Your task to perform on an android device: Search for lg ultragear on target, select the first entry, and add it to the cart. Image 0: 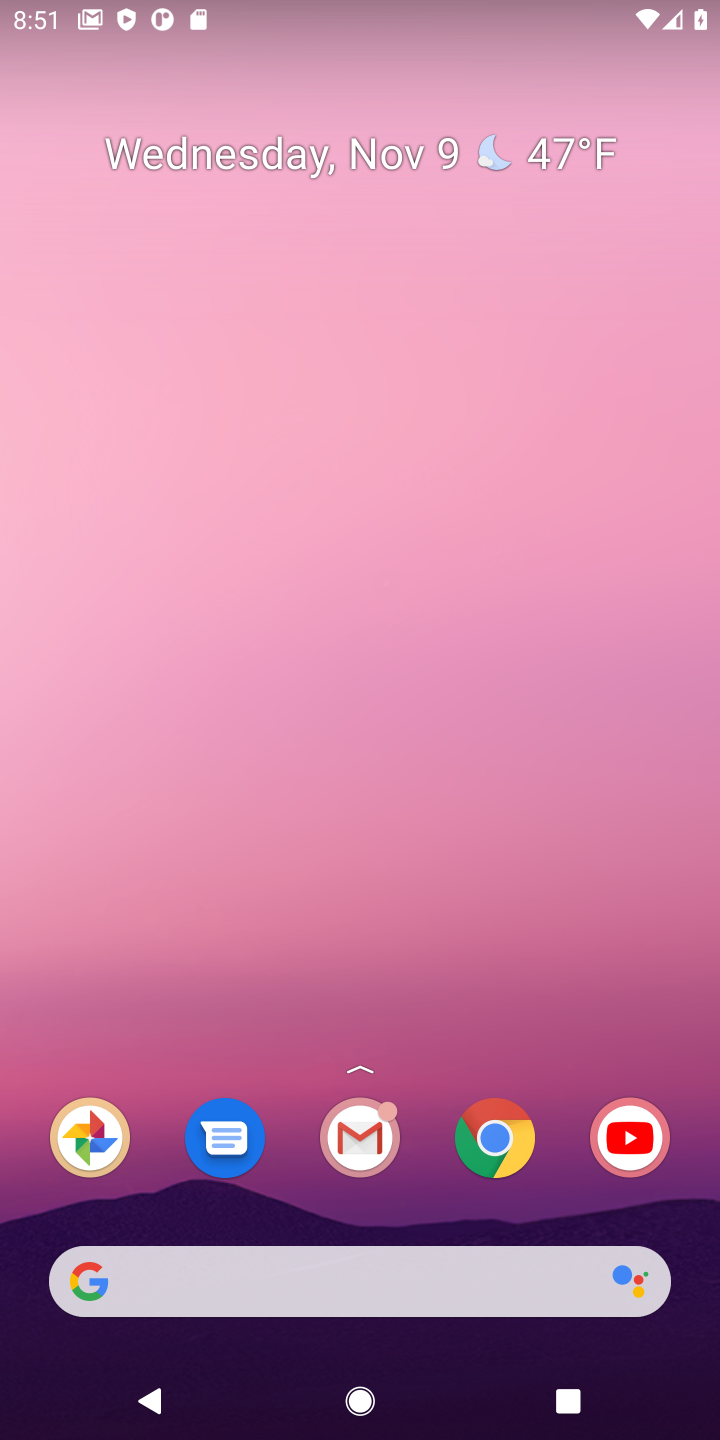
Step 0: drag from (370, 505) to (407, 97)
Your task to perform on an android device: Search for lg ultragear on target, select the first entry, and add it to the cart. Image 1: 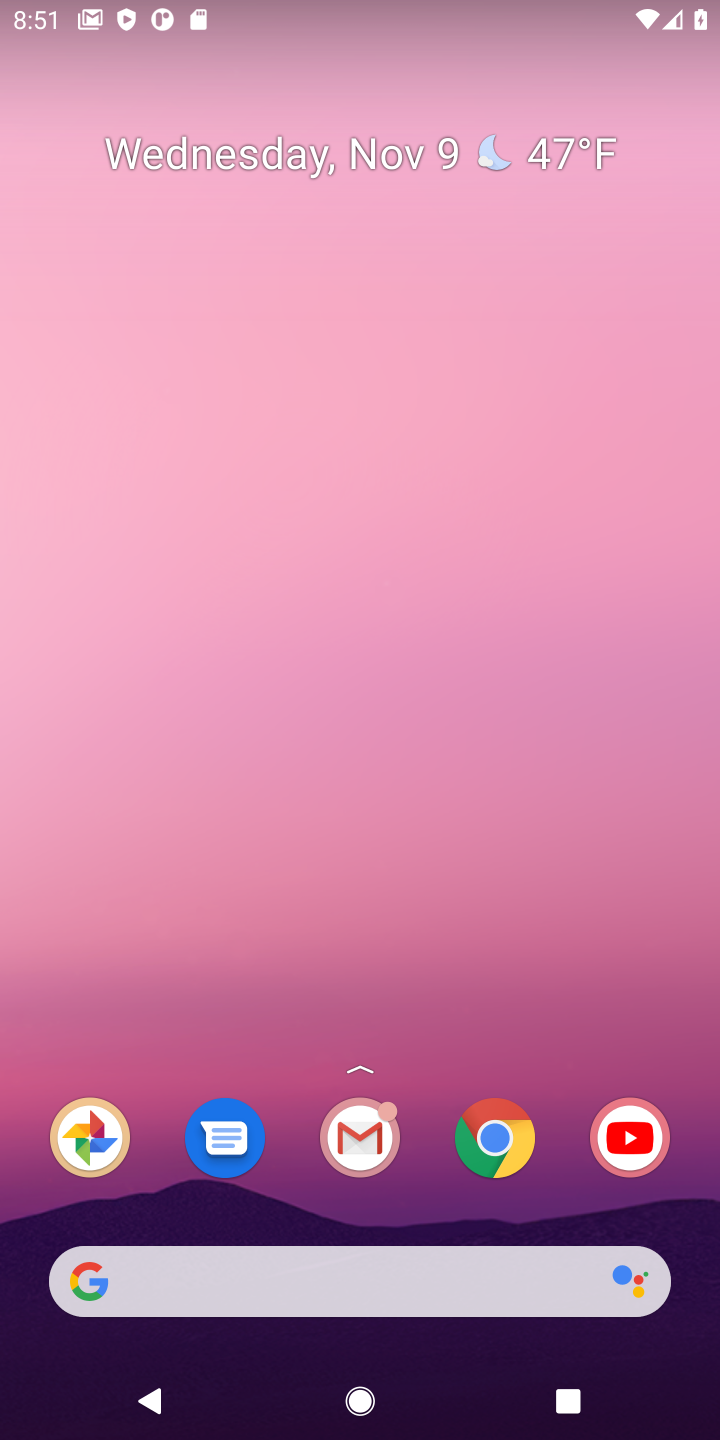
Step 1: drag from (417, 1186) to (549, 124)
Your task to perform on an android device: Search for lg ultragear on target, select the first entry, and add it to the cart. Image 2: 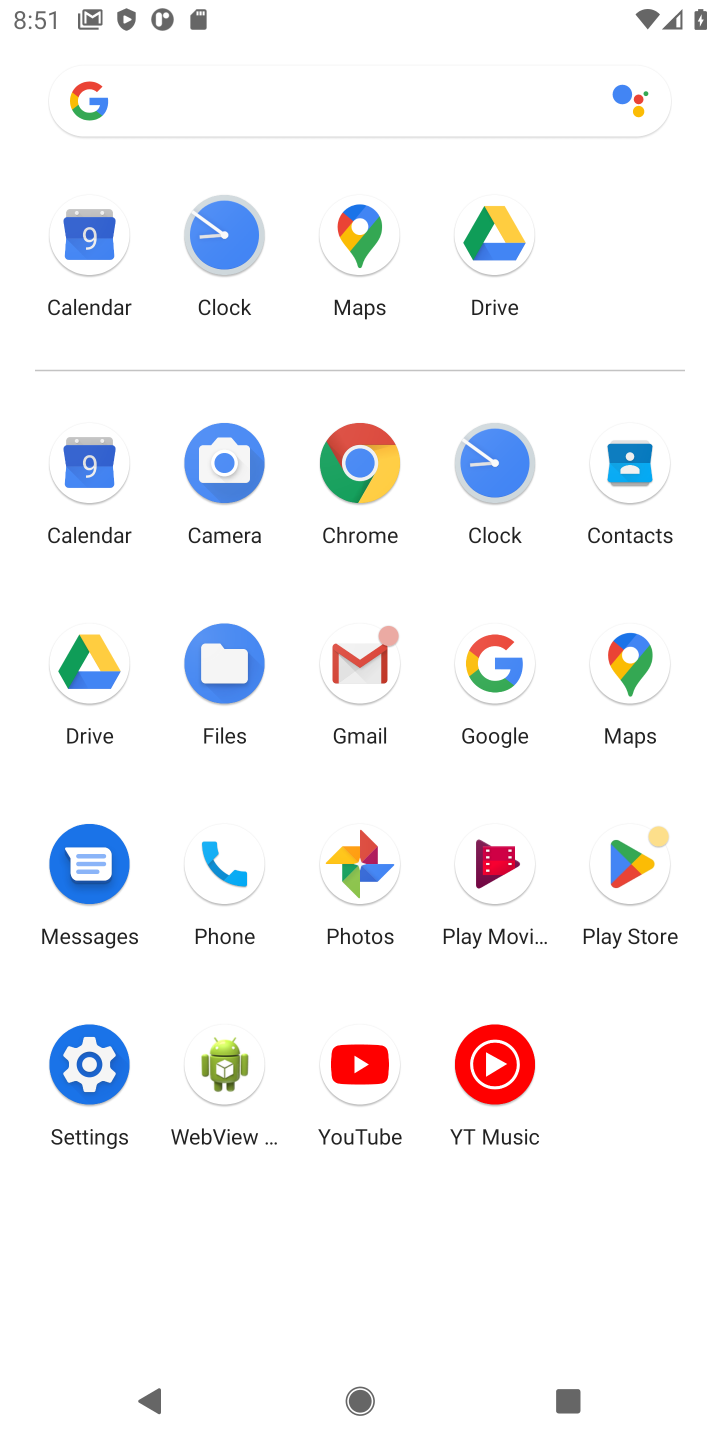
Step 2: click (362, 468)
Your task to perform on an android device: Search for lg ultragear on target, select the first entry, and add it to the cart. Image 3: 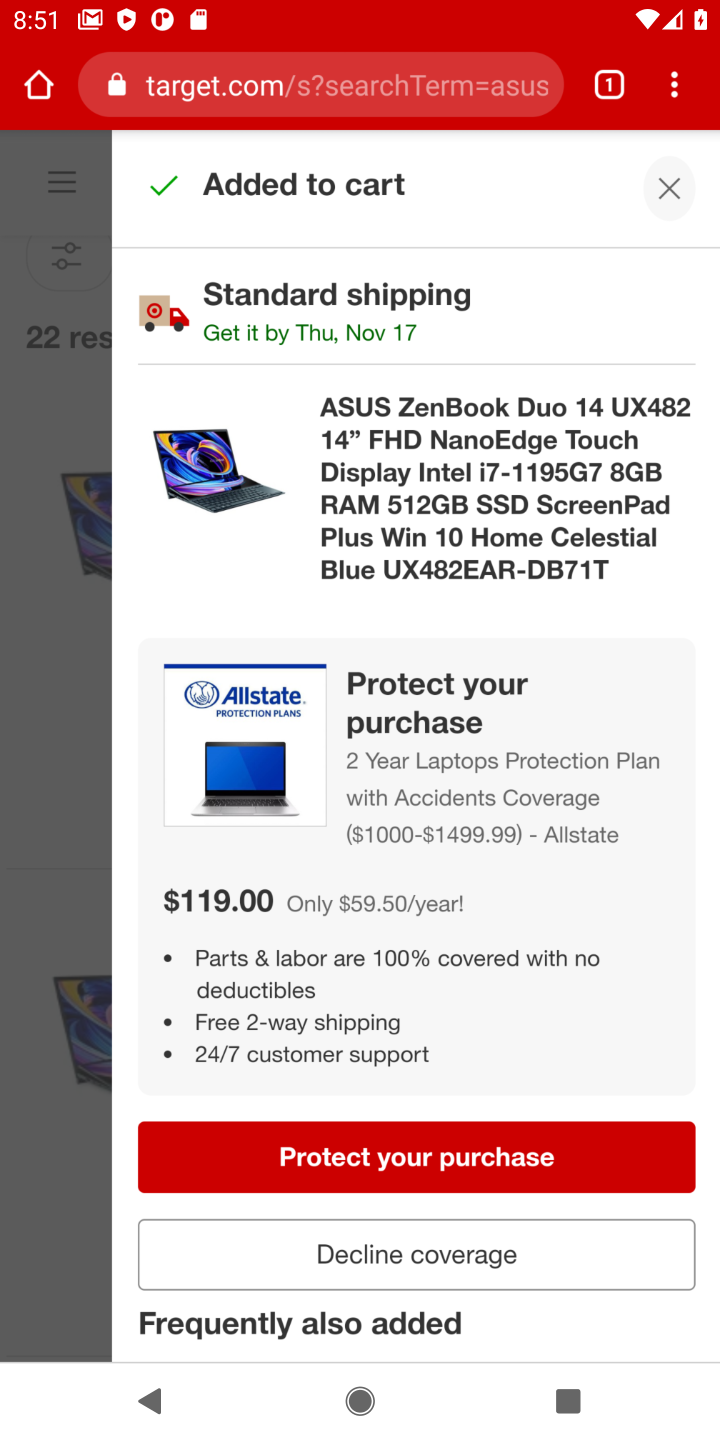
Step 3: click (367, 85)
Your task to perform on an android device: Search for lg ultragear on target, select the first entry, and add it to the cart. Image 4: 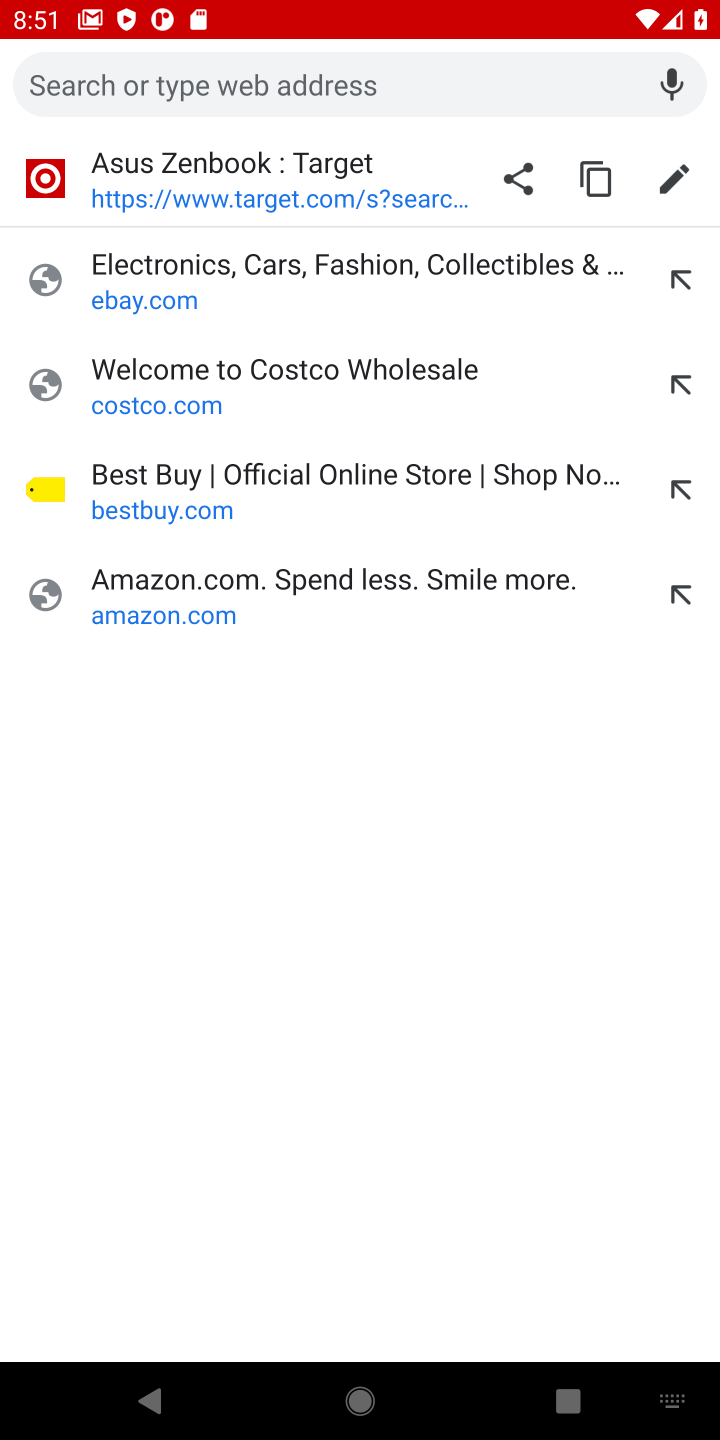
Step 4: type "target.com"
Your task to perform on an android device: Search for lg ultragear on target, select the first entry, and add it to the cart. Image 5: 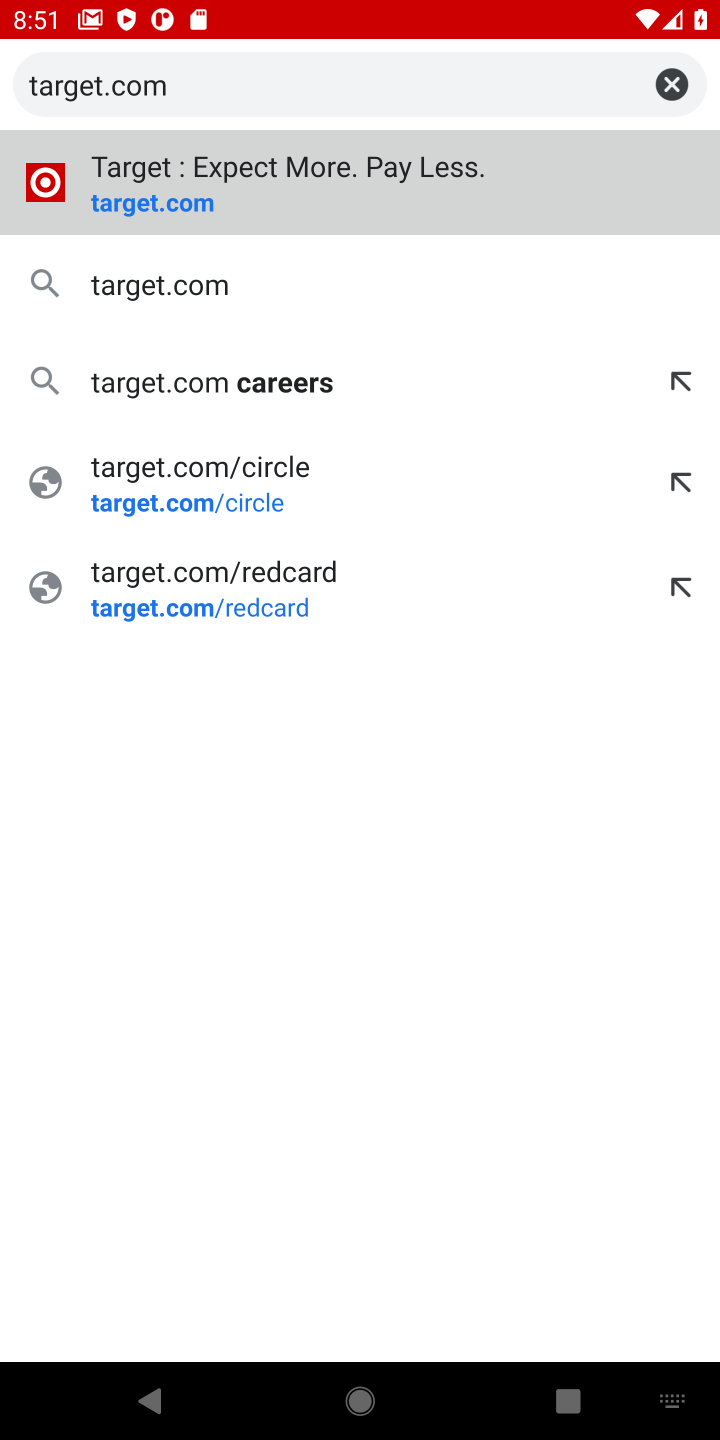
Step 5: press enter
Your task to perform on an android device: Search for lg ultragear on target, select the first entry, and add it to the cart. Image 6: 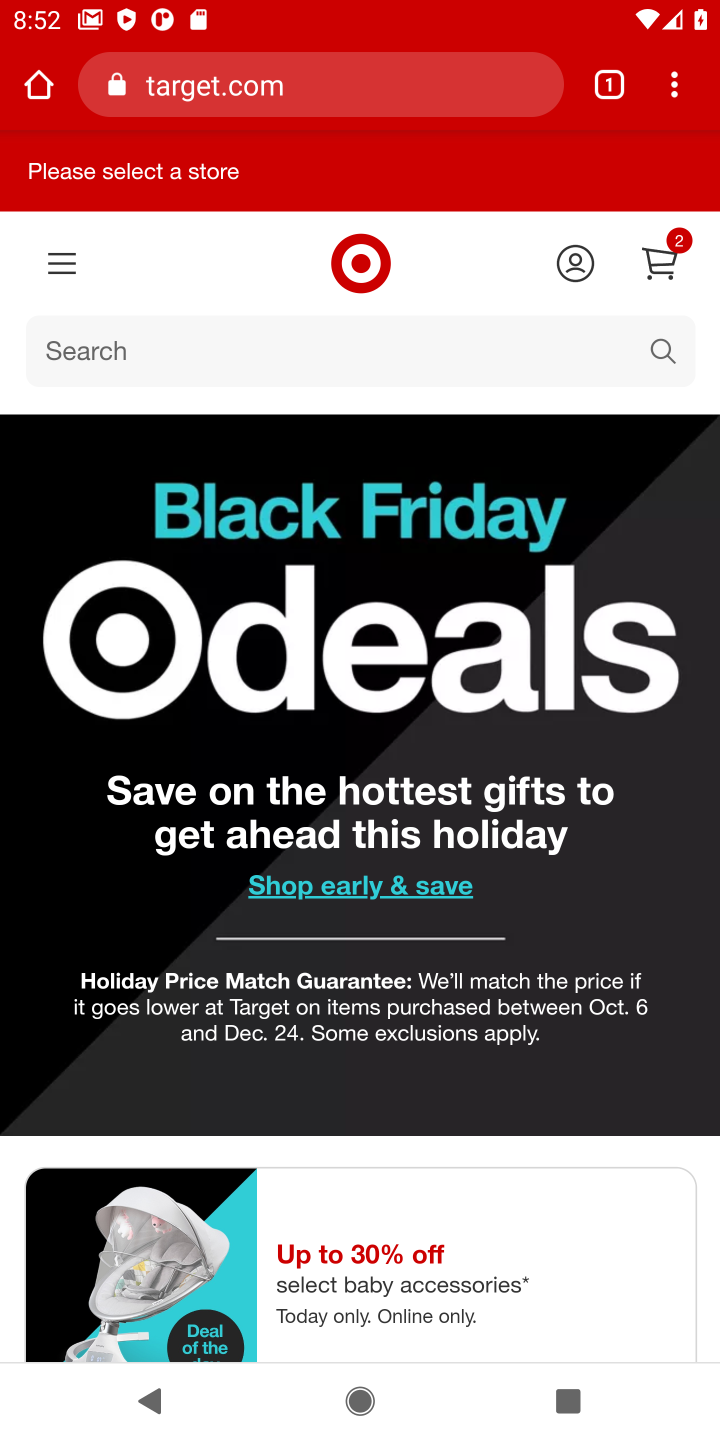
Step 6: click (269, 349)
Your task to perform on an android device: Search for lg ultragear on target, select the first entry, and add it to the cart. Image 7: 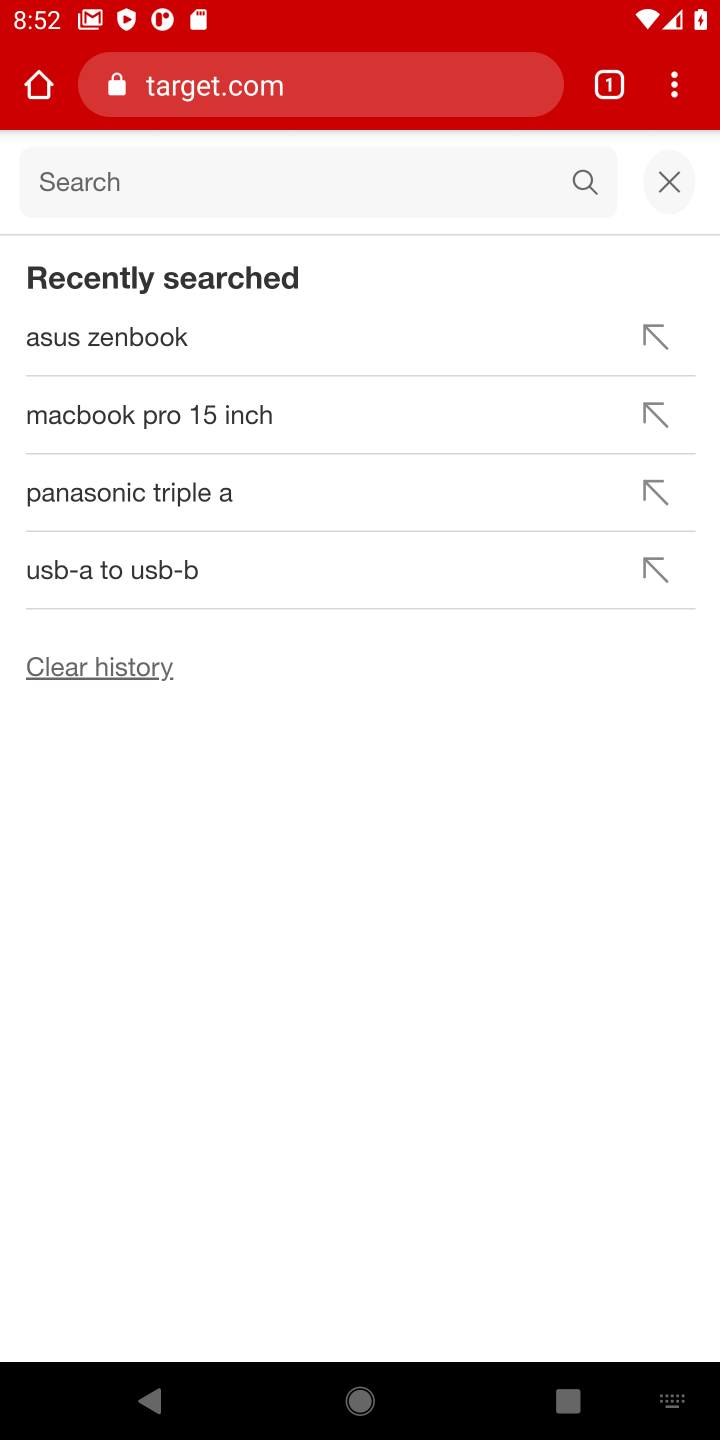
Step 7: type "lg ultragrear"
Your task to perform on an android device: Search for lg ultragear on target, select the first entry, and add it to the cart. Image 8: 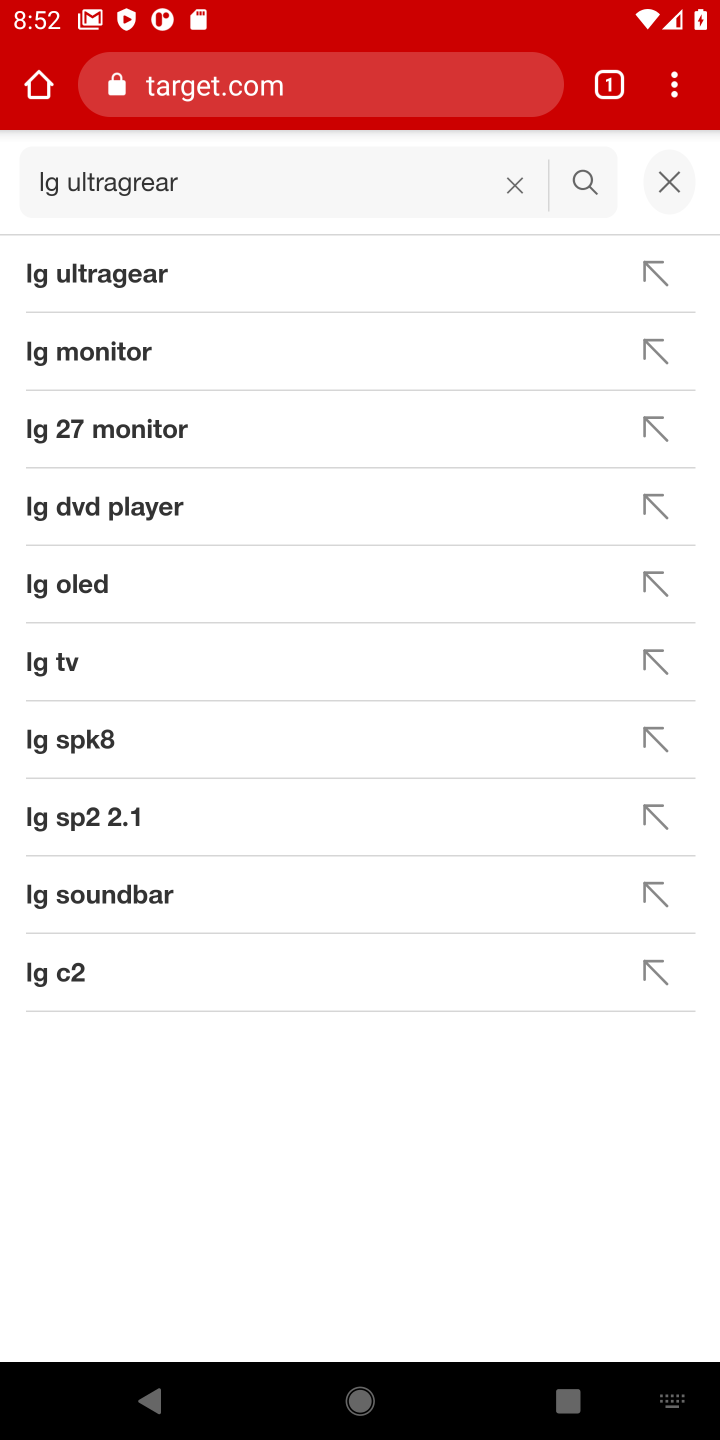
Step 8: press enter
Your task to perform on an android device: Search for lg ultragear on target, select the first entry, and add it to the cart. Image 9: 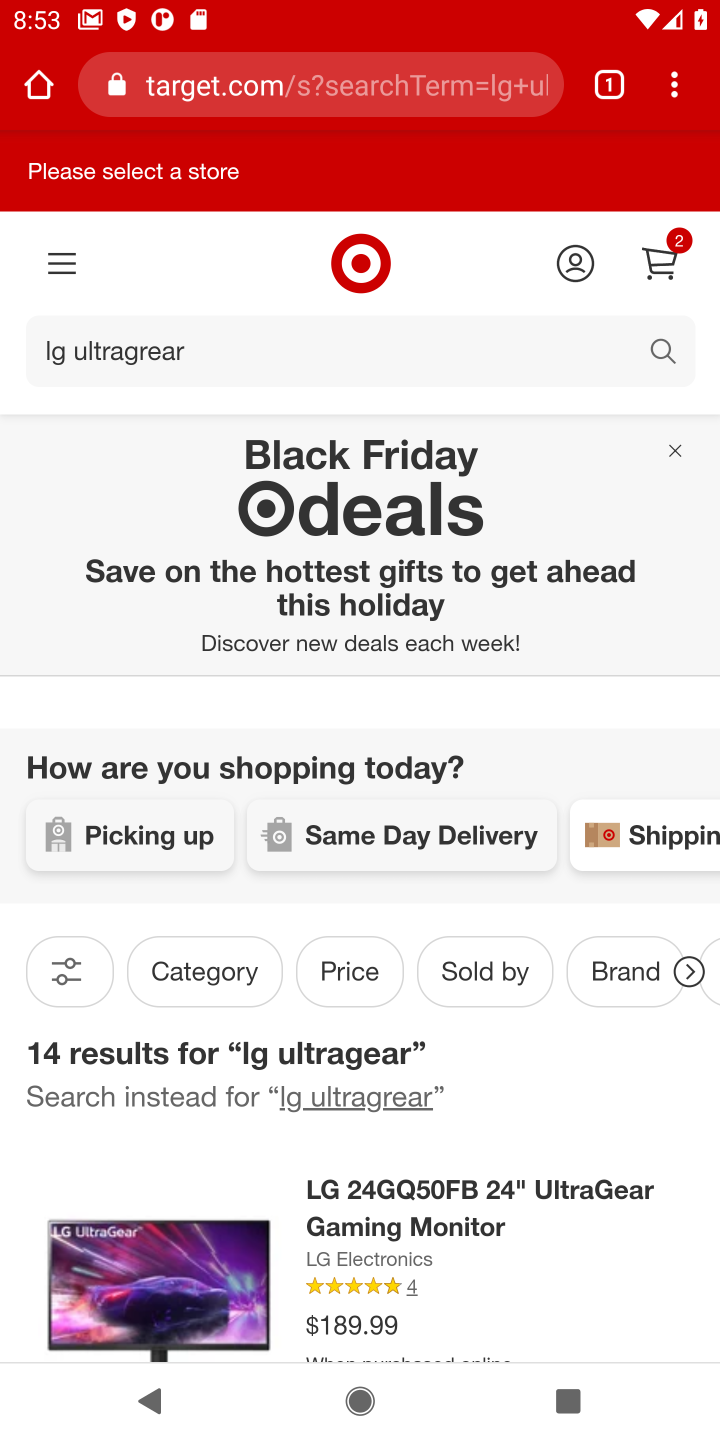
Step 9: drag from (418, 1270) to (545, 327)
Your task to perform on an android device: Search for lg ultragear on target, select the first entry, and add it to the cart. Image 10: 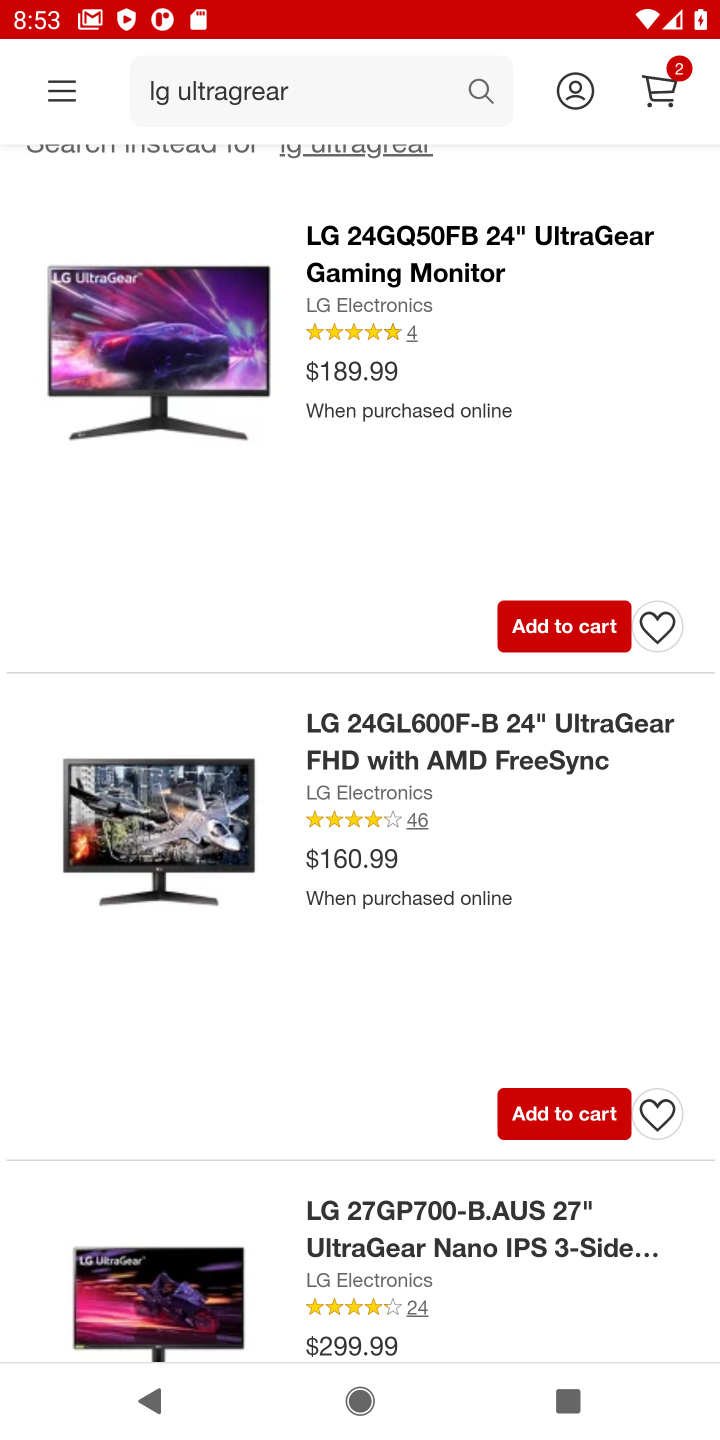
Step 10: click (667, 70)
Your task to perform on an android device: Search for lg ultragear on target, select the first entry, and add it to the cart. Image 11: 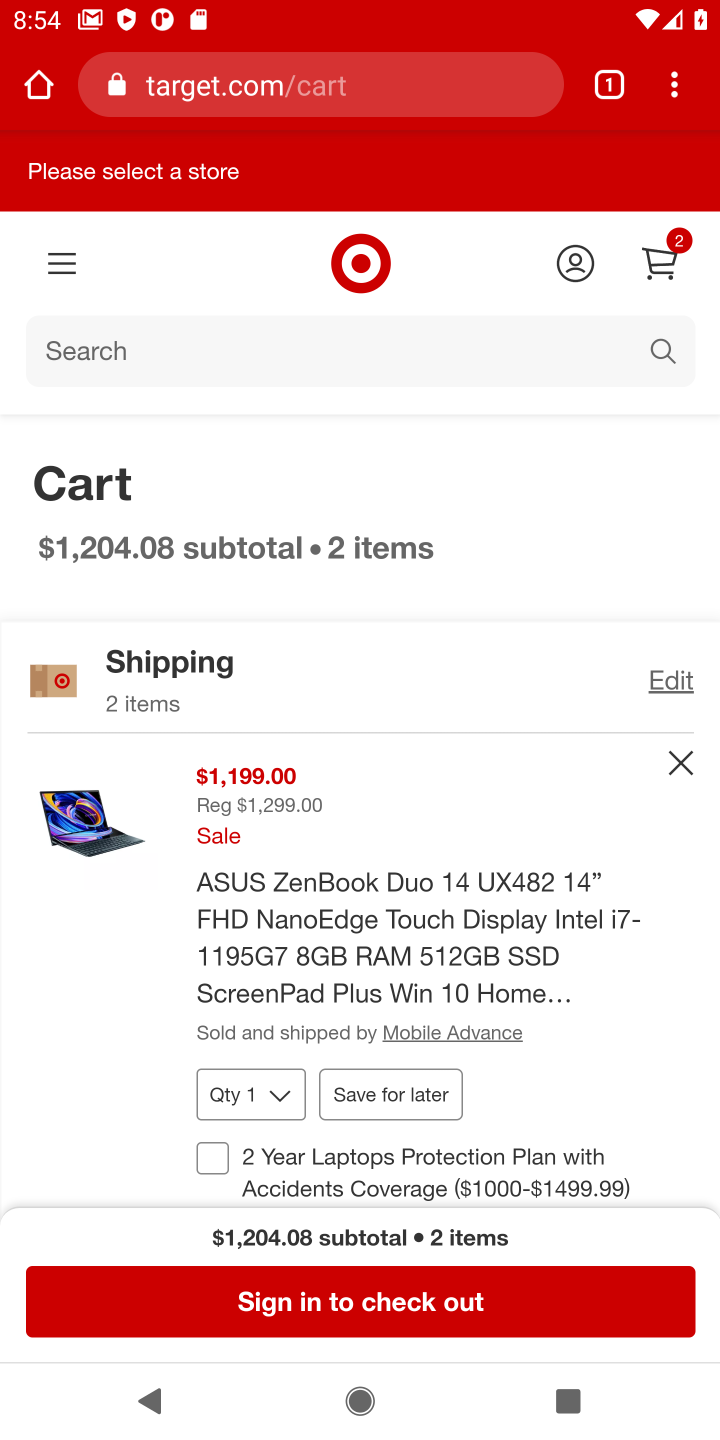
Step 11: drag from (458, 875) to (498, 93)
Your task to perform on an android device: Search for lg ultragear on target, select the first entry, and add it to the cart. Image 12: 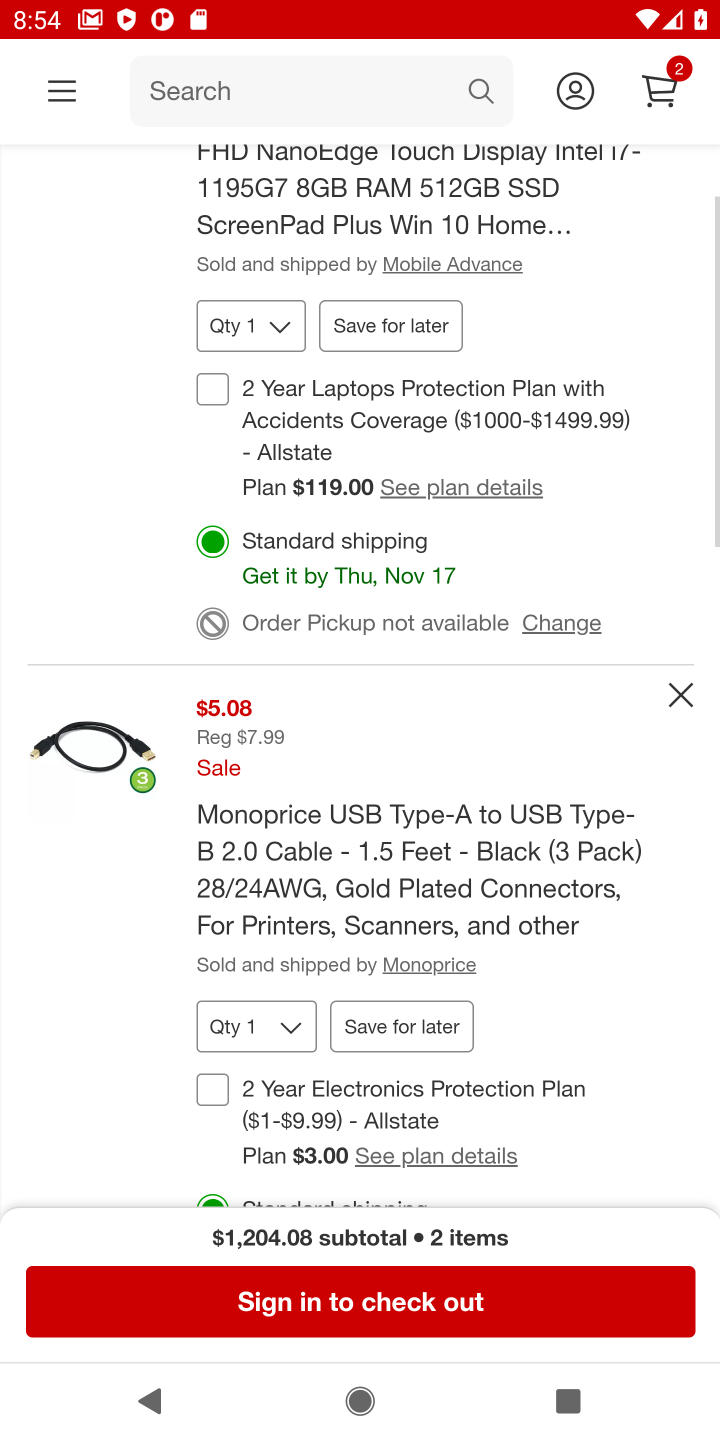
Step 12: drag from (543, 1008) to (633, 28)
Your task to perform on an android device: Search for lg ultragear on target, select the first entry, and add it to the cart. Image 13: 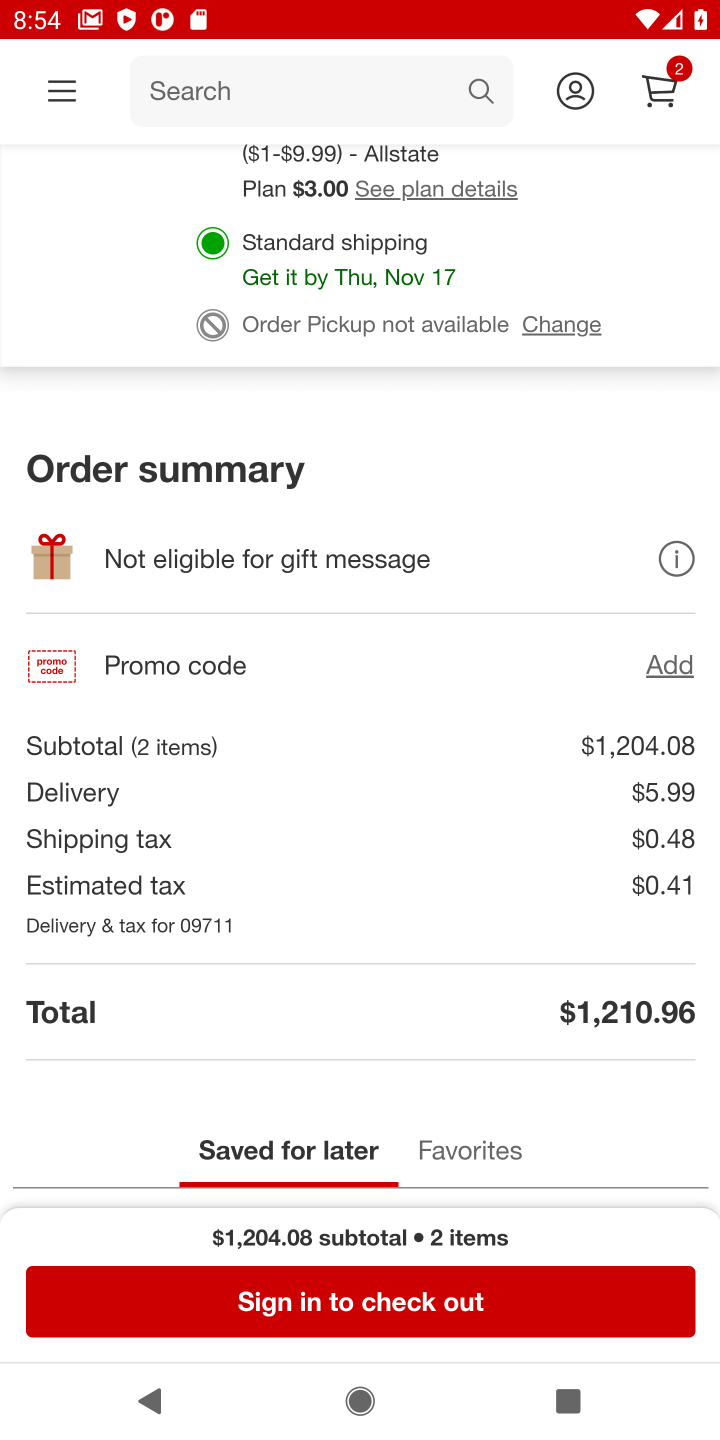
Step 13: drag from (622, 223) to (461, 1131)
Your task to perform on an android device: Search for lg ultragear on target, select the first entry, and add it to the cart. Image 14: 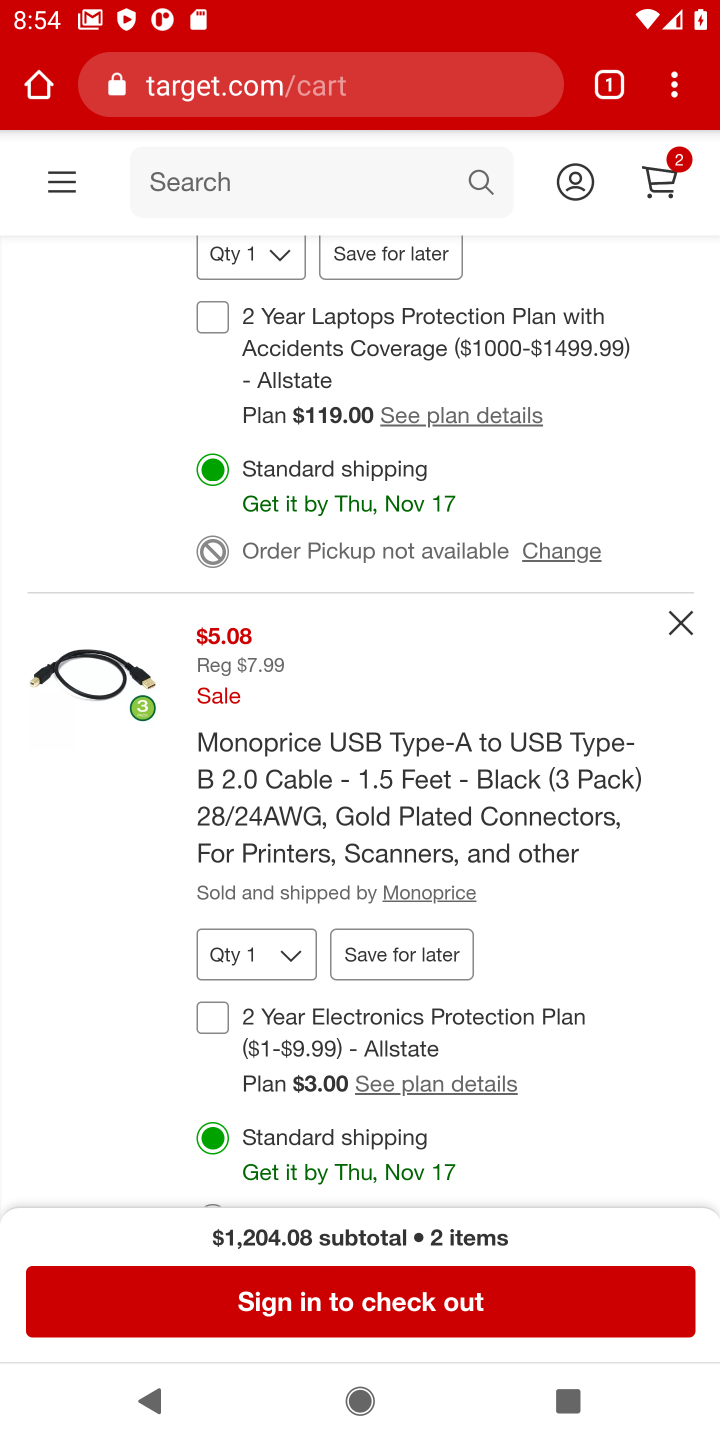
Step 14: press back button
Your task to perform on an android device: Search for lg ultragear on target, select the first entry, and add it to the cart. Image 15: 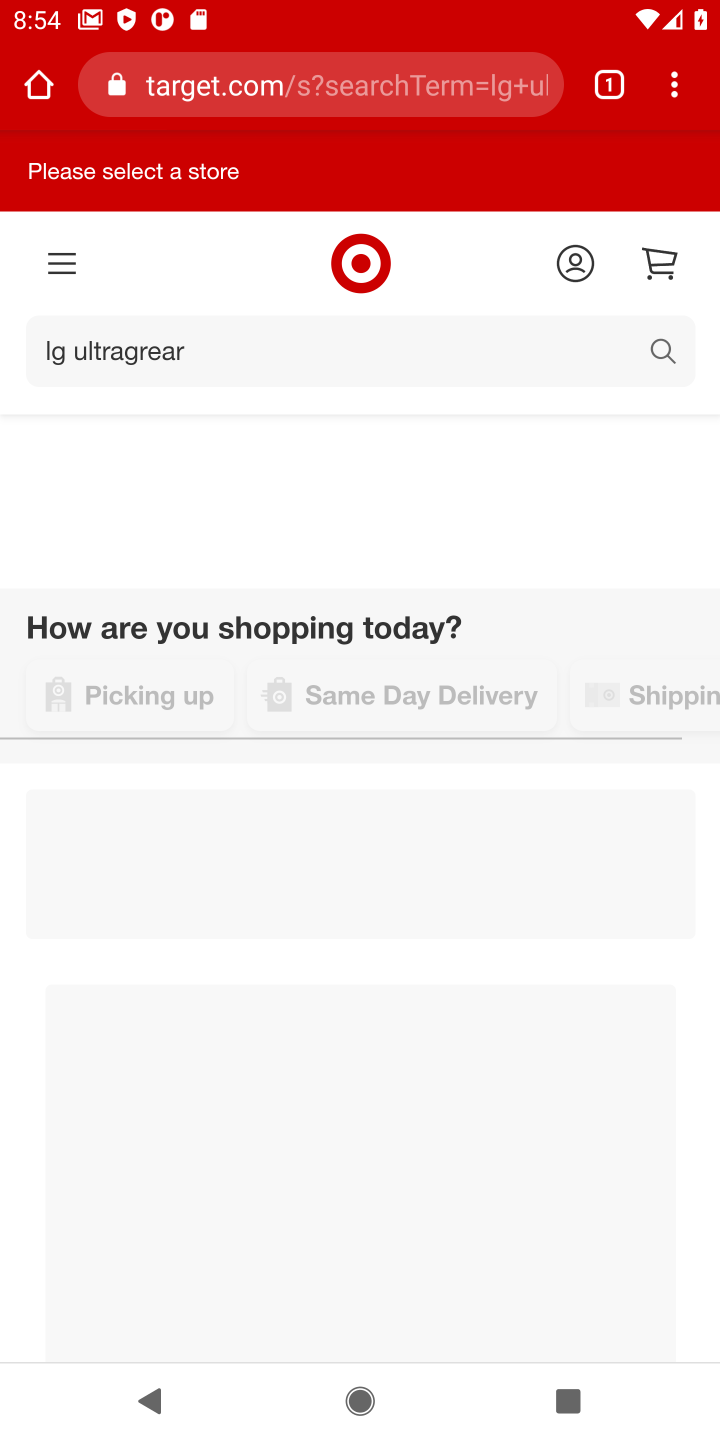
Step 15: click (450, 340)
Your task to perform on an android device: Search for lg ultragear on target, select the first entry, and add it to the cart. Image 16: 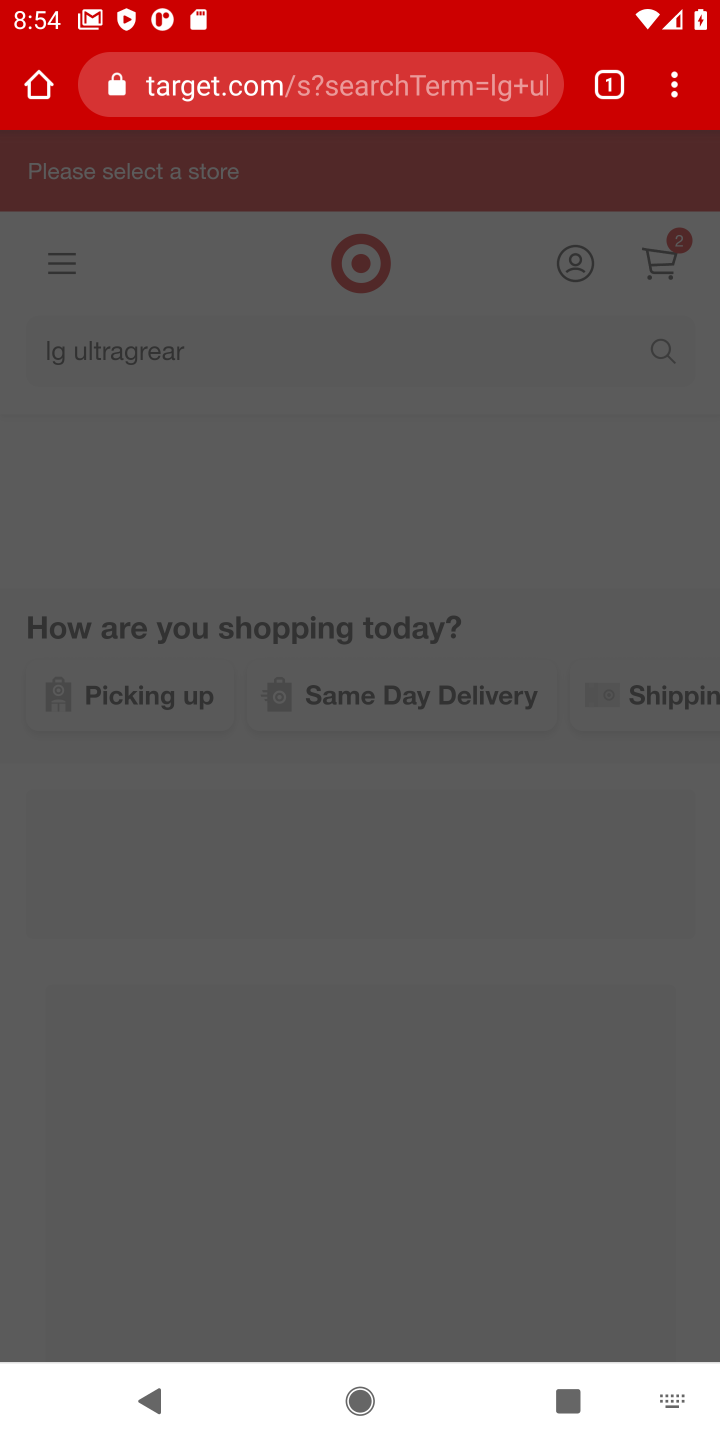
Step 16: drag from (367, 1025) to (457, 240)
Your task to perform on an android device: Search for lg ultragear on target, select the first entry, and add it to the cart. Image 17: 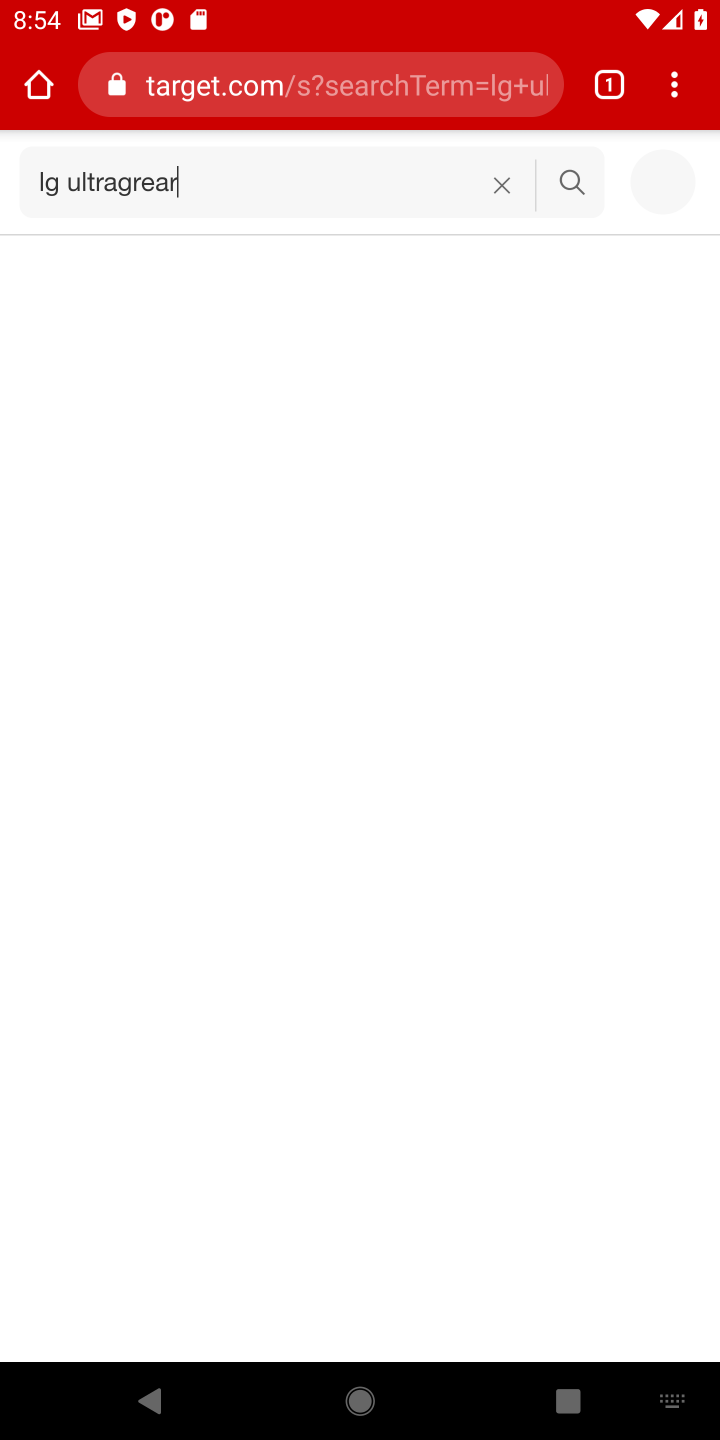
Step 17: press enter
Your task to perform on an android device: Search for lg ultragear on target, select the first entry, and add it to the cart. Image 18: 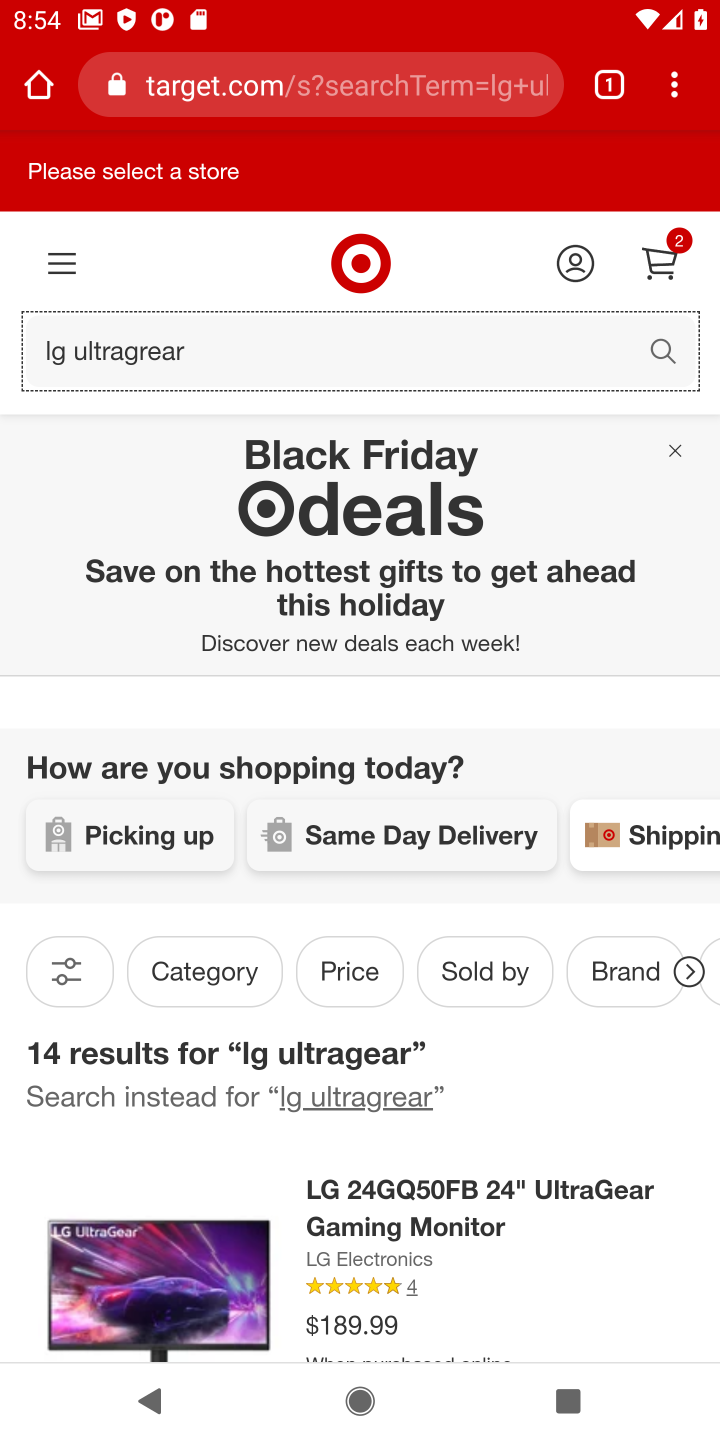
Step 18: drag from (391, 1098) to (514, 245)
Your task to perform on an android device: Search for lg ultragear on target, select the first entry, and add it to the cart. Image 19: 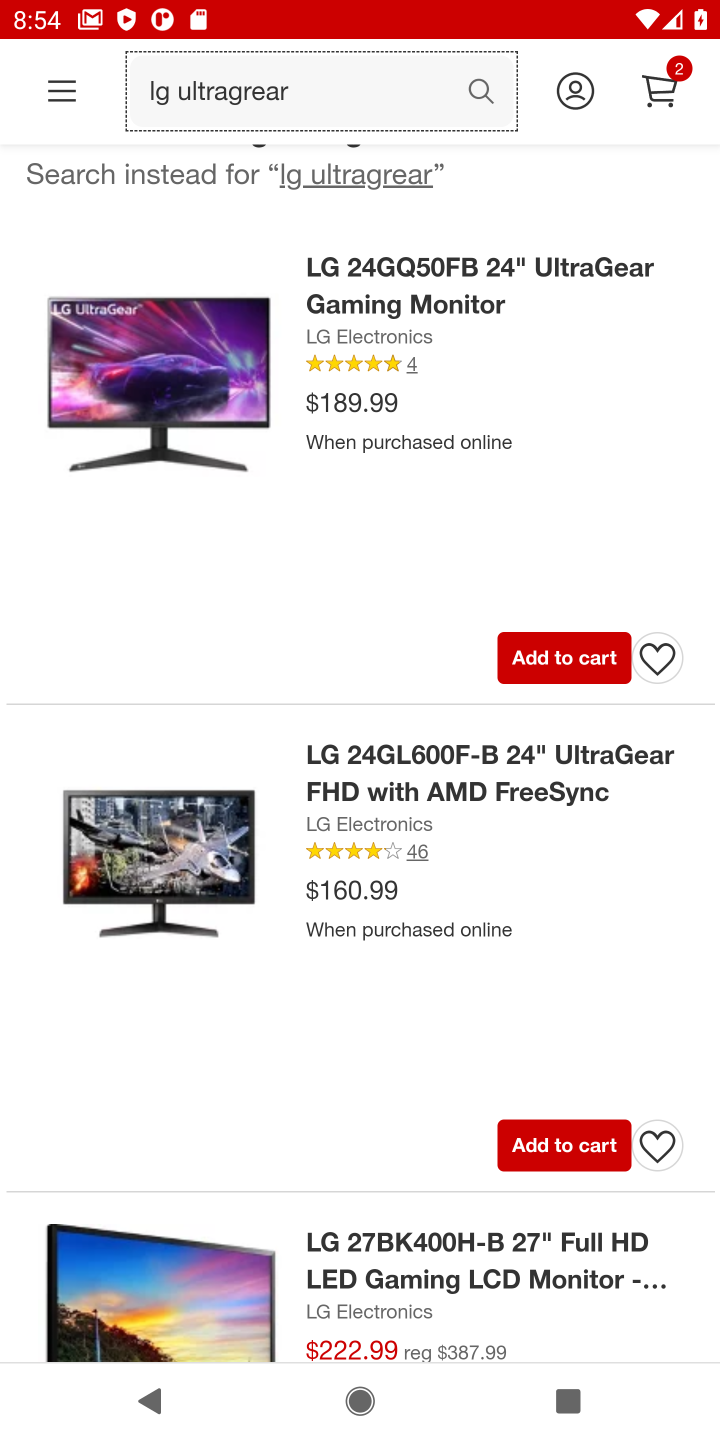
Step 19: click (567, 664)
Your task to perform on an android device: Search for lg ultragear on target, select the first entry, and add it to the cart. Image 20: 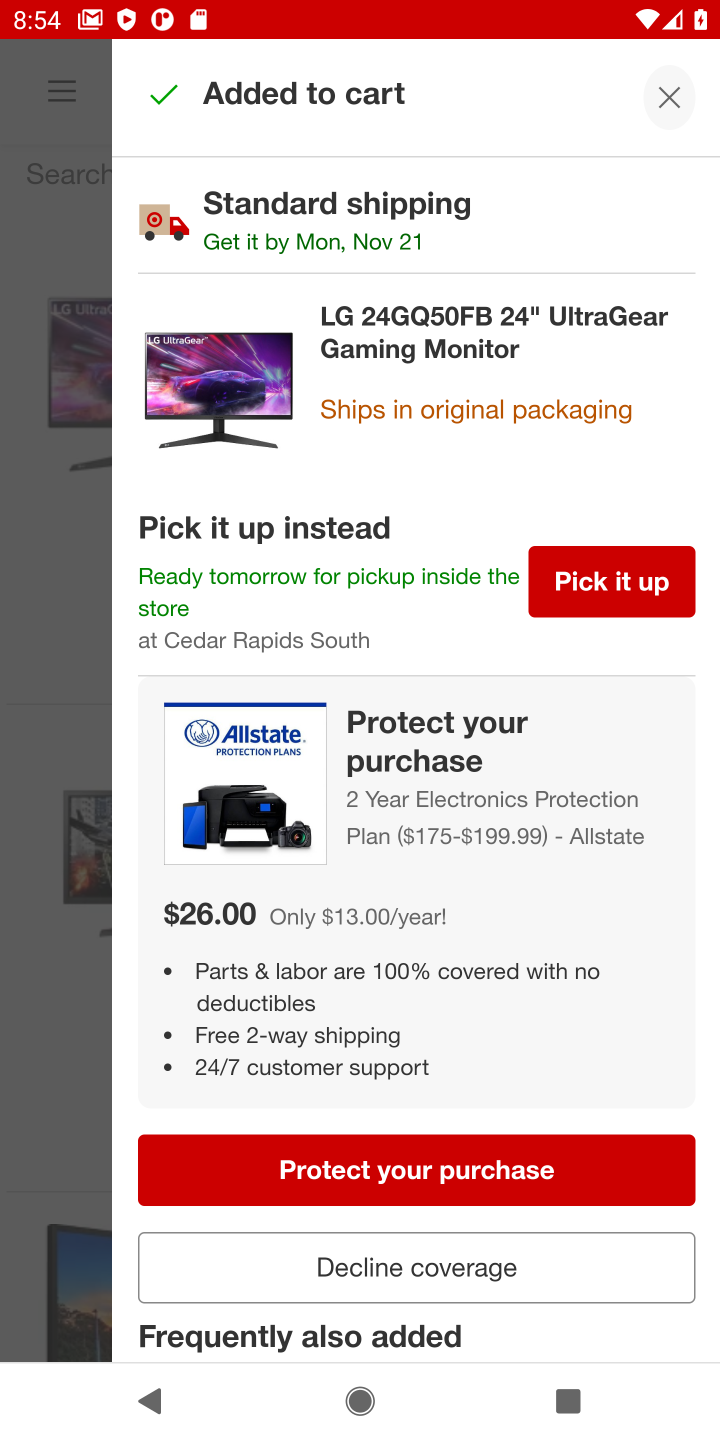
Step 20: click (661, 94)
Your task to perform on an android device: Search for lg ultragear on target, select the first entry, and add it to the cart. Image 21: 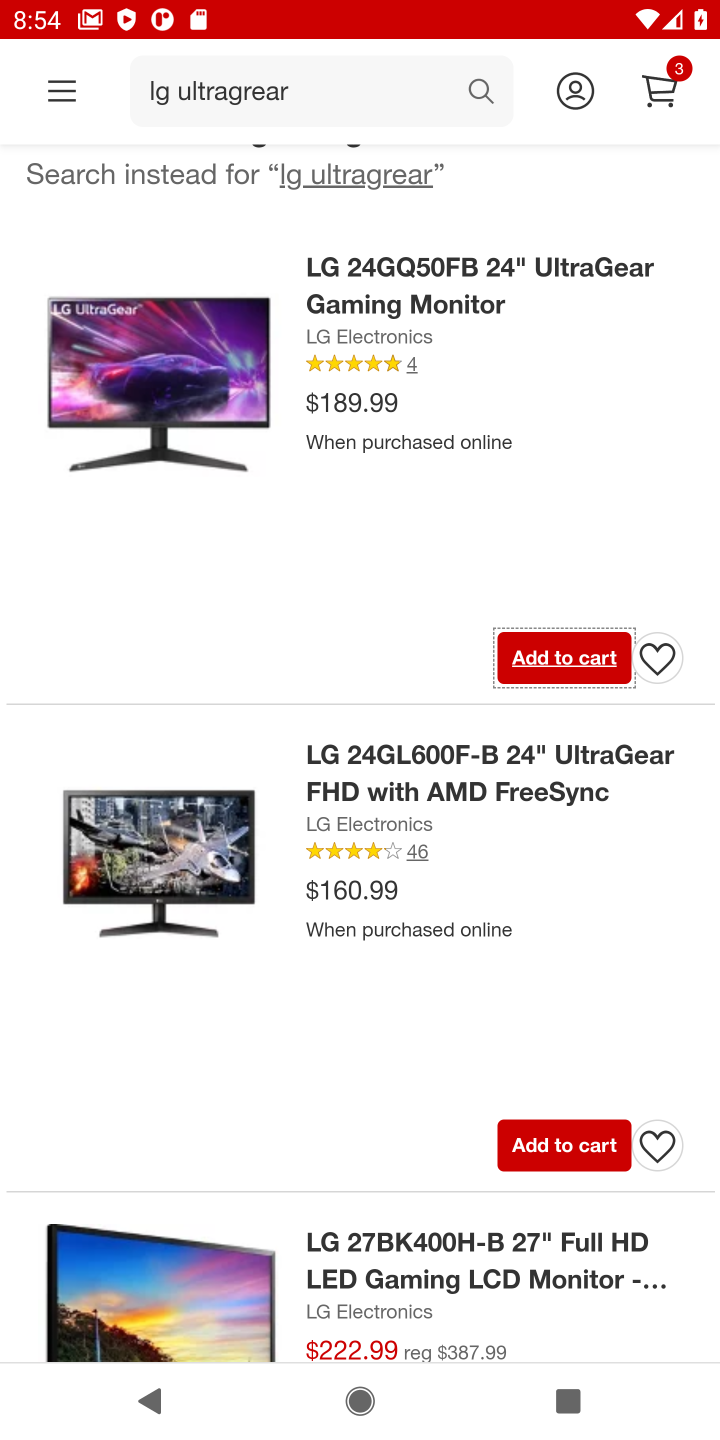
Step 21: click (659, 98)
Your task to perform on an android device: Search for lg ultragear on target, select the first entry, and add it to the cart. Image 22: 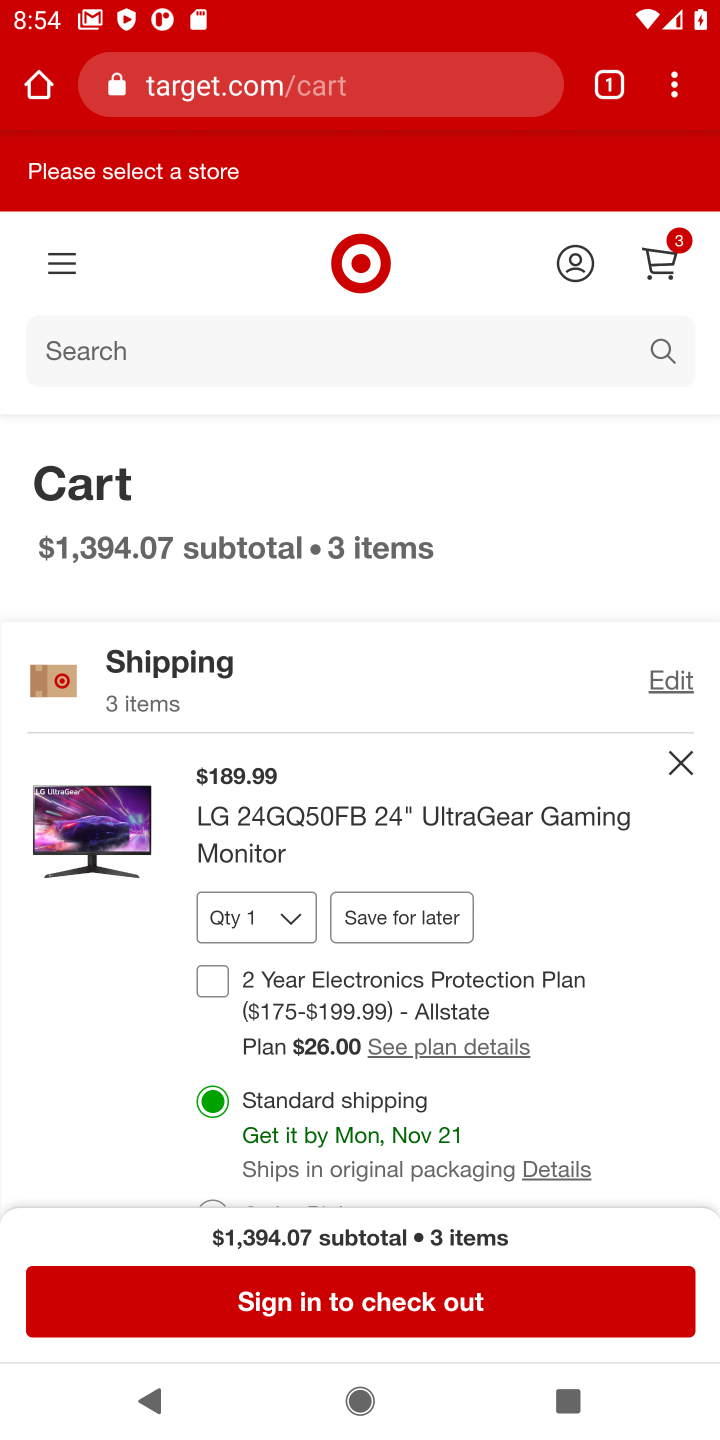
Step 22: task complete